Your task to perform on an android device: Do I have any events tomorrow? Image 0: 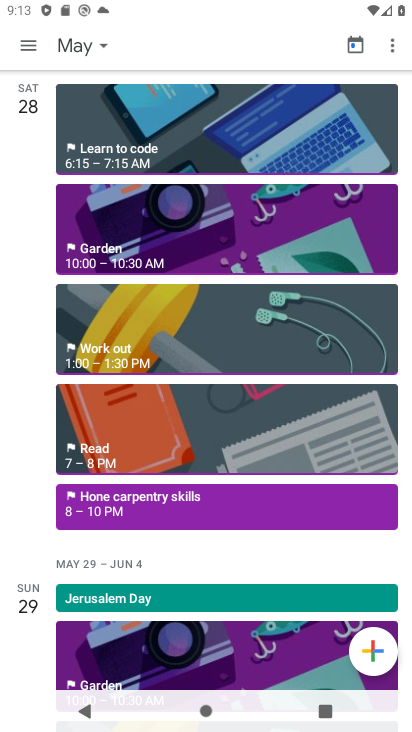
Step 0: press home button
Your task to perform on an android device: Do I have any events tomorrow? Image 1: 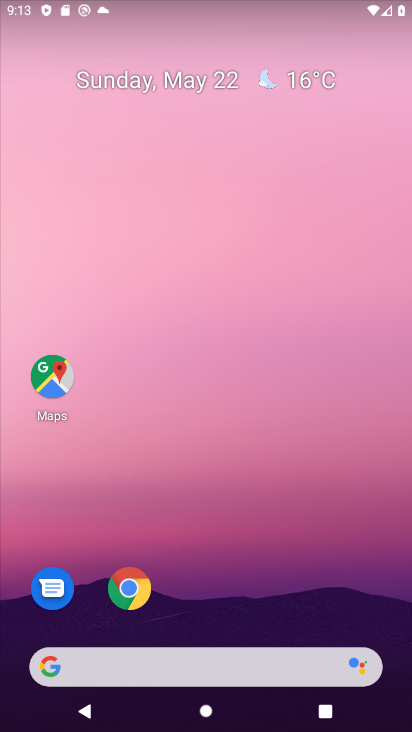
Step 1: drag from (229, 631) to (229, 187)
Your task to perform on an android device: Do I have any events tomorrow? Image 2: 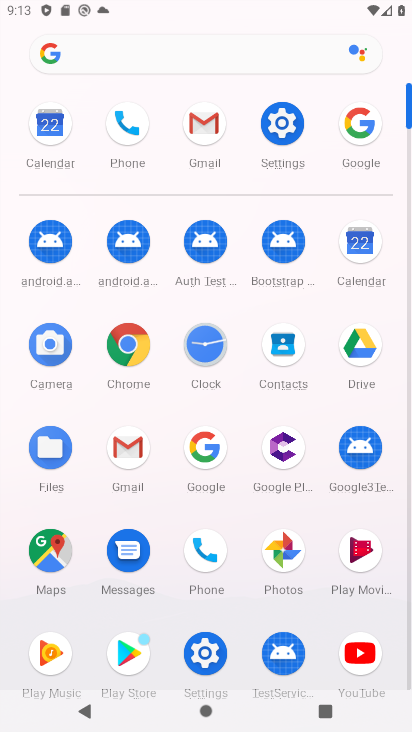
Step 2: click (338, 243)
Your task to perform on an android device: Do I have any events tomorrow? Image 3: 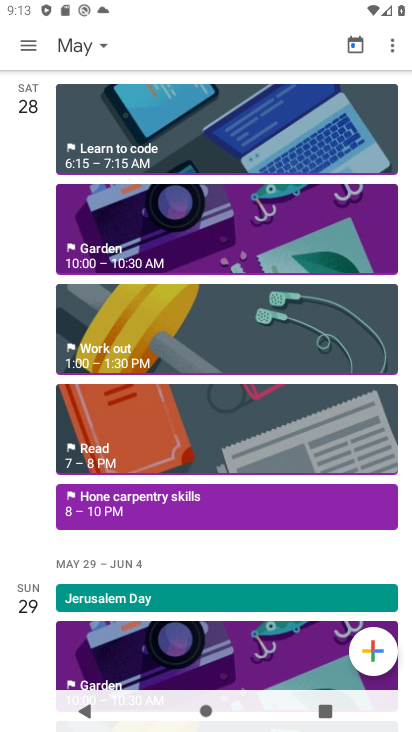
Step 3: click (101, 48)
Your task to perform on an android device: Do I have any events tomorrow? Image 4: 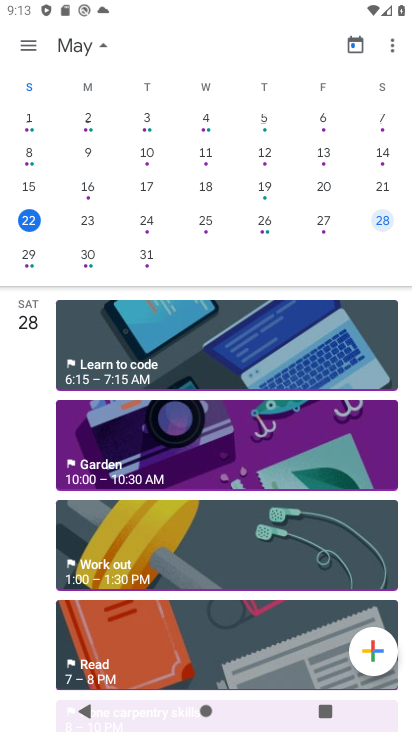
Step 4: click (91, 214)
Your task to perform on an android device: Do I have any events tomorrow? Image 5: 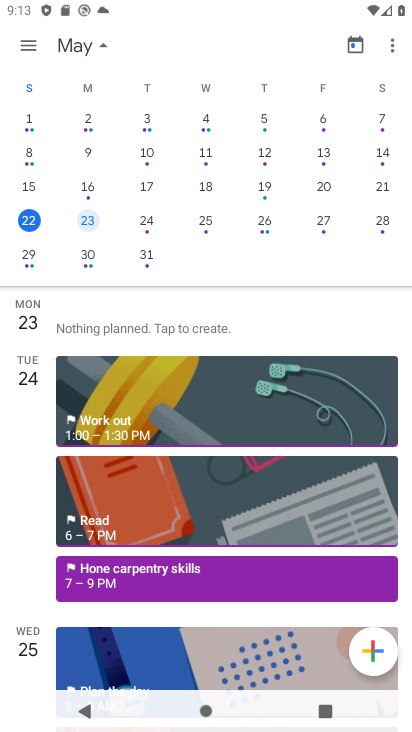
Step 5: task complete